Your task to perform on an android device: turn off notifications in google photos Image 0: 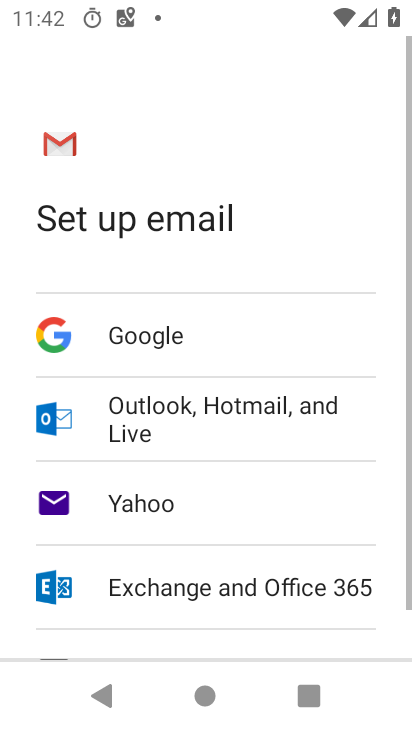
Step 0: press home button
Your task to perform on an android device: turn off notifications in google photos Image 1: 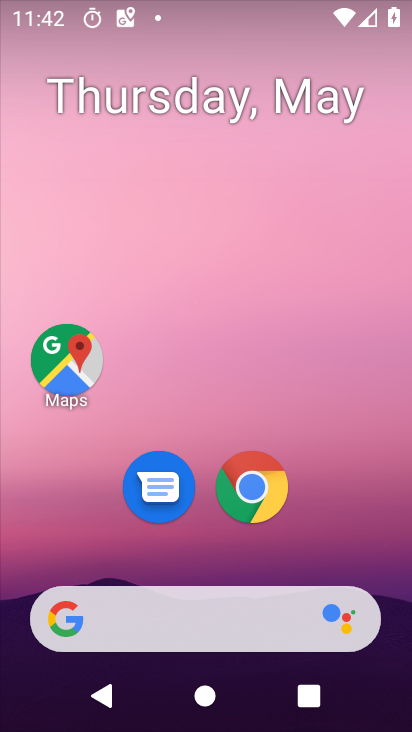
Step 1: drag from (311, 530) to (259, 147)
Your task to perform on an android device: turn off notifications in google photos Image 2: 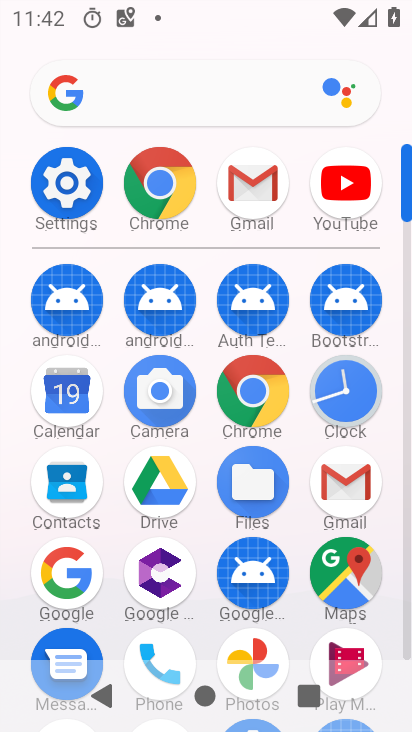
Step 2: click (252, 651)
Your task to perform on an android device: turn off notifications in google photos Image 3: 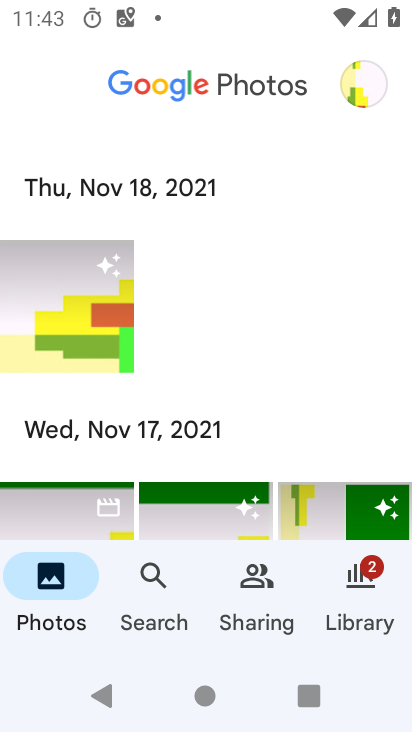
Step 3: click (374, 88)
Your task to perform on an android device: turn off notifications in google photos Image 4: 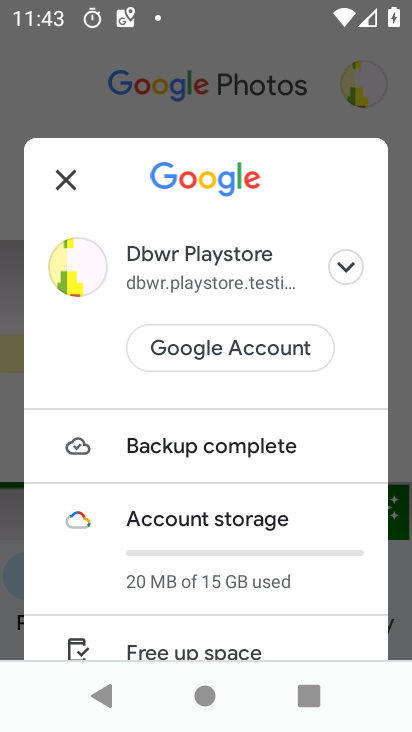
Step 4: drag from (271, 586) to (253, 333)
Your task to perform on an android device: turn off notifications in google photos Image 5: 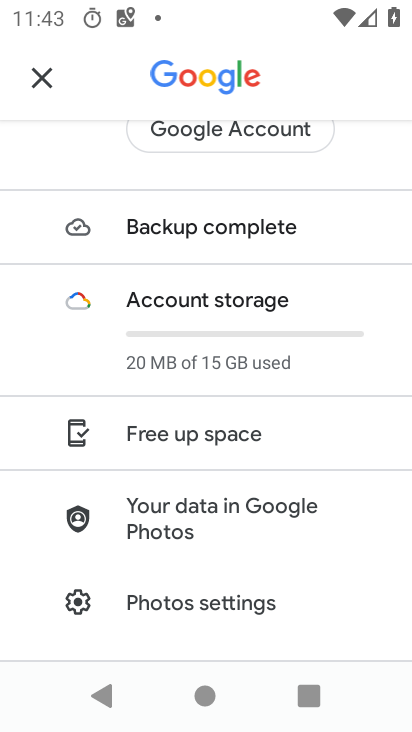
Step 5: click (223, 603)
Your task to perform on an android device: turn off notifications in google photos Image 6: 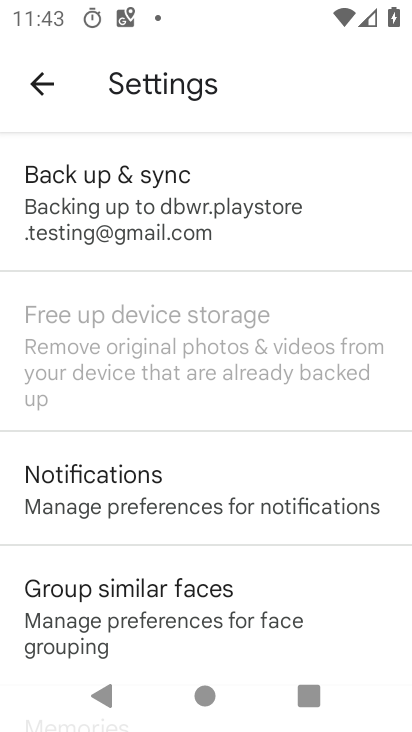
Step 6: click (210, 513)
Your task to perform on an android device: turn off notifications in google photos Image 7: 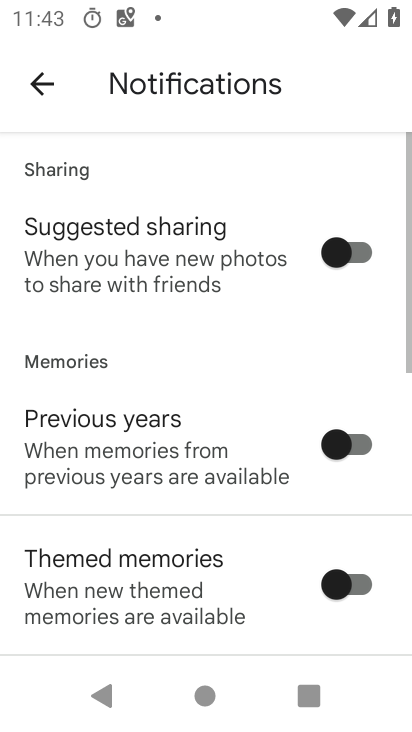
Step 7: drag from (189, 576) to (203, 281)
Your task to perform on an android device: turn off notifications in google photos Image 8: 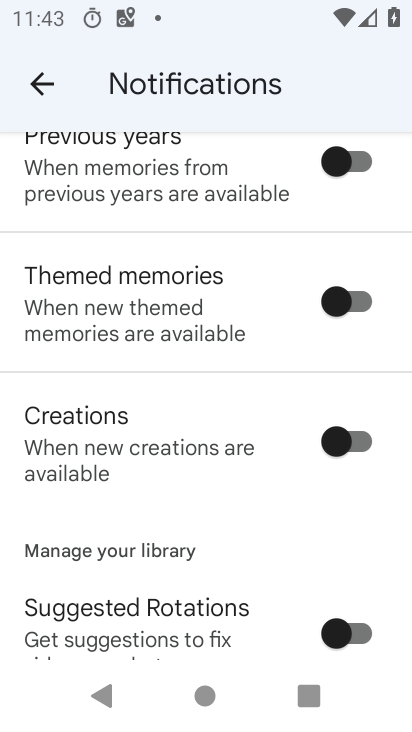
Step 8: drag from (230, 614) to (243, 266)
Your task to perform on an android device: turn off notifications in google photos Image 9: 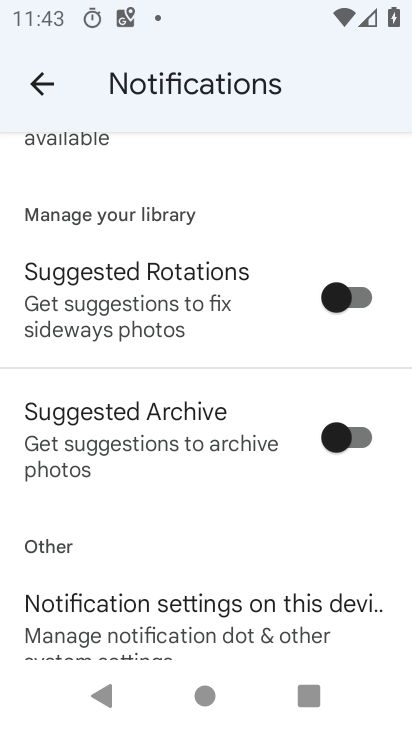
Step 9: drag from (232, 566) to (230, 235)
Your task to perform on an android device: turn off notifications in google photos Image 10: 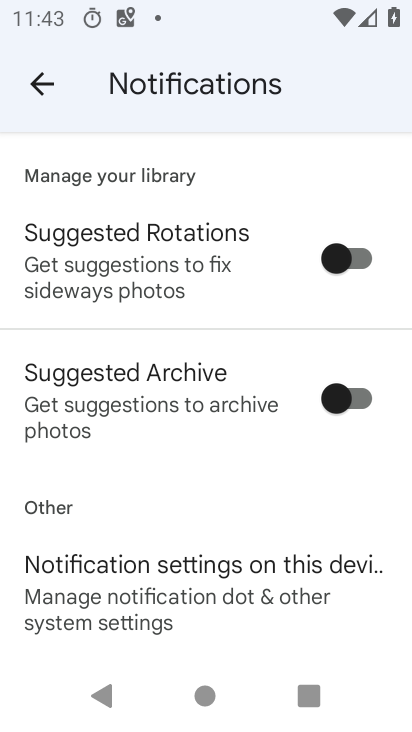
Step 10: click (40, 80)
Your task to perform on an android device: turn off notifications in google photos Image 11: 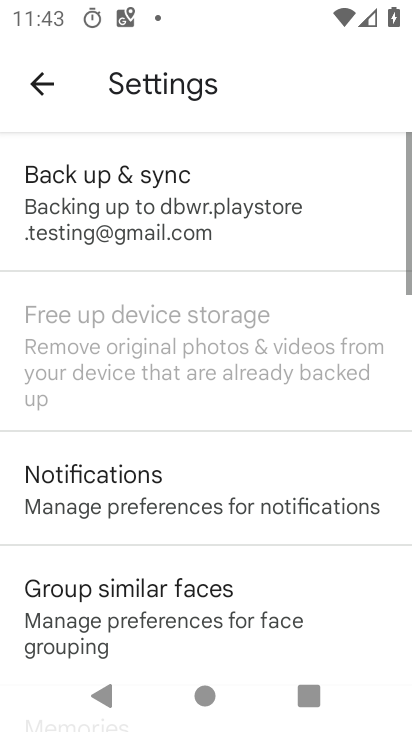
Step 11: drag from (266, 581) to (229, 244)
Your task to perform on an android device: turn off notifications in google photos Image 12: 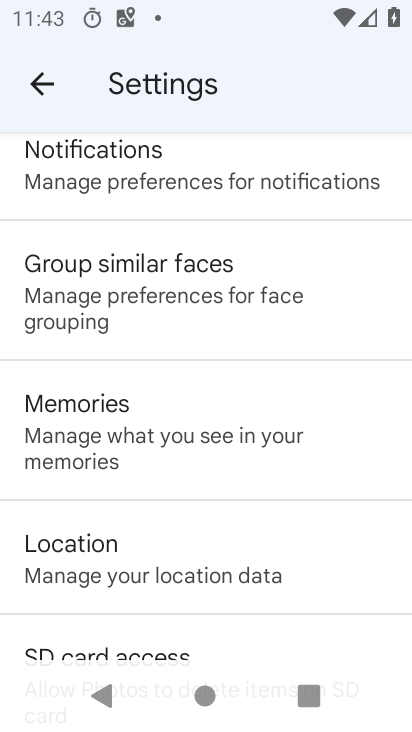
Step 12: drag from (230, 570) to (232, 274)
Your task to perform on an android device: turn off notifications in google photos Image 13: 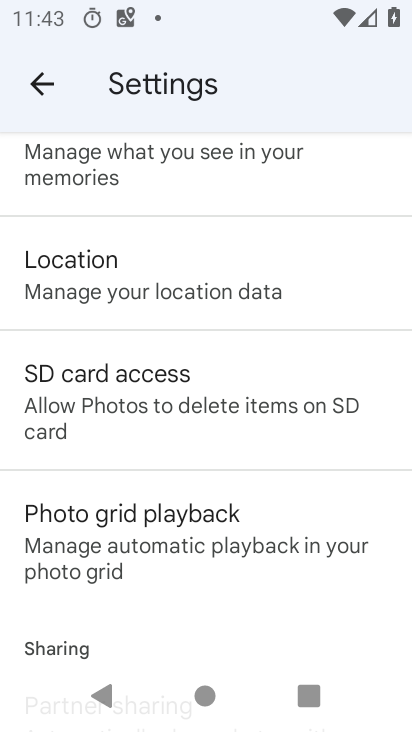
Step 13: drag from (221, 600) to (232, 307)
Your task to perform on an android device: turn off notifications in google photos Image 14: 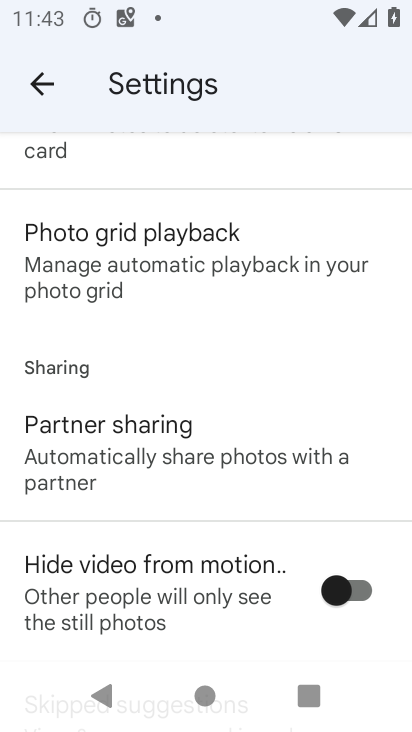
Step 14: drag from (231, 306) to (232, 549)
Your task to perform on an android device: turn off notifications in google photos Image 15: 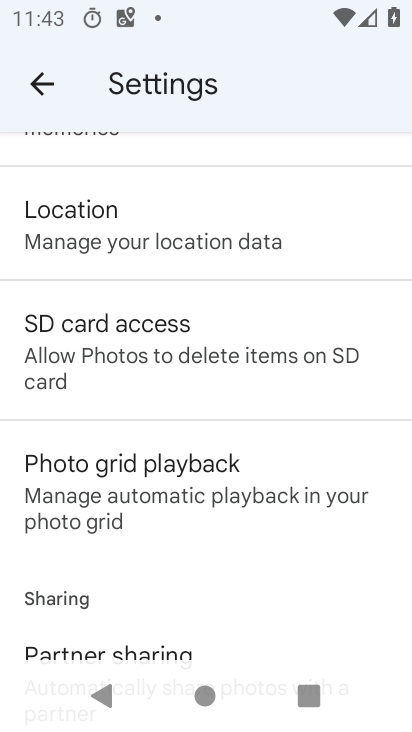
Step 15: drag from (232, 232) to (225, 530)
Your task to perform on an android device: turn off notifications in google photos Image 16: 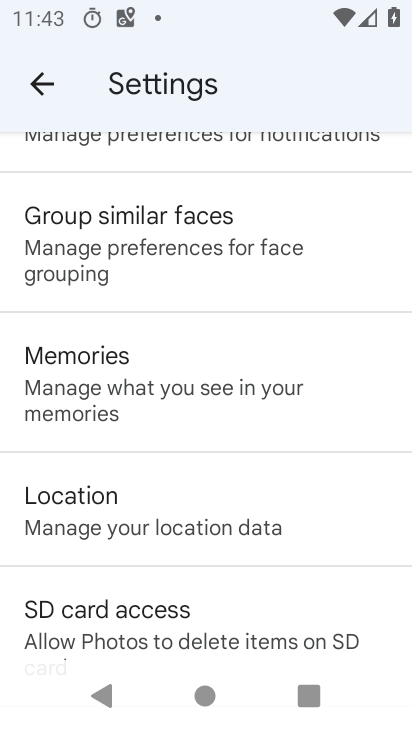
Step 16: drag from (236, 204) to (227, 476)
Your task to perform on an android device: turn off notifications in google photos Image 17: 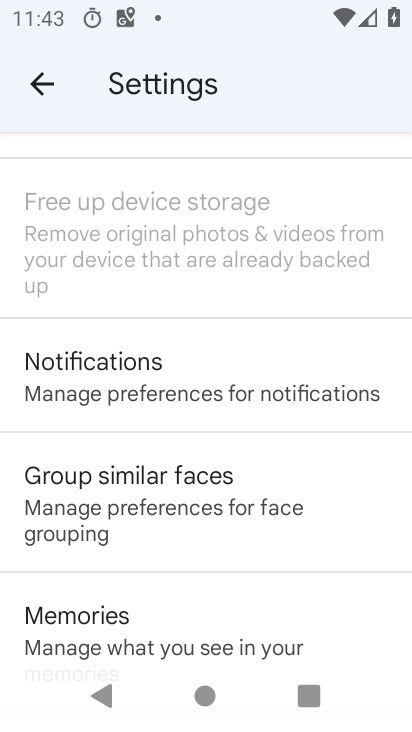
Step 17: click (199, 379)
Your task to perform on an android device: turn off notifications in google photos Image 18: 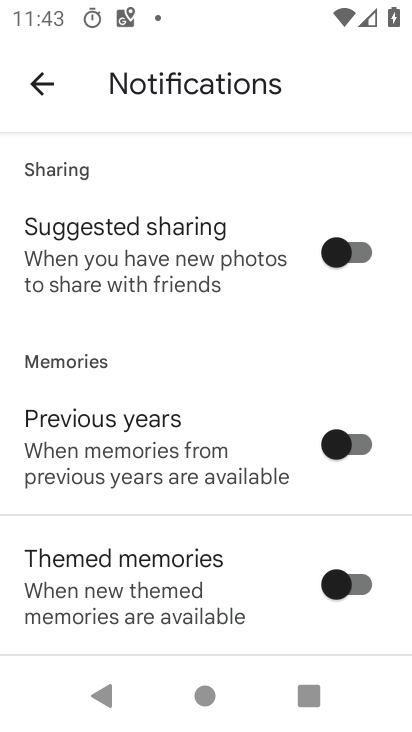
Step 18: drag from (221, 571) to (208, 292)
Your task to perform on an android device: turn off notifications in google photos Image 19: 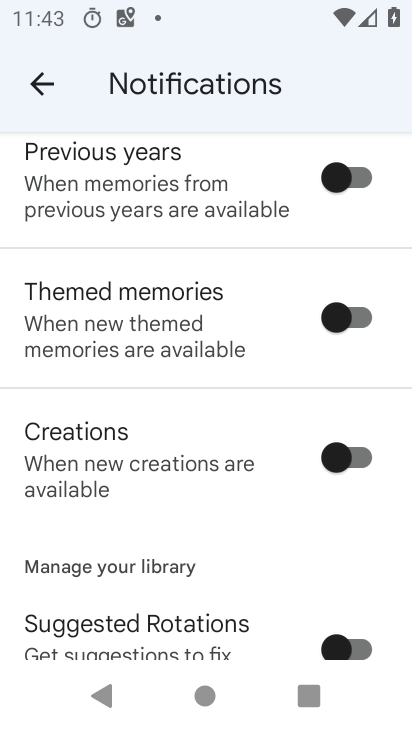
Step 19: drag from (222, 591) to (205, 272)
Your task to perform on an android device: turn off notifications in google photos Image 20: 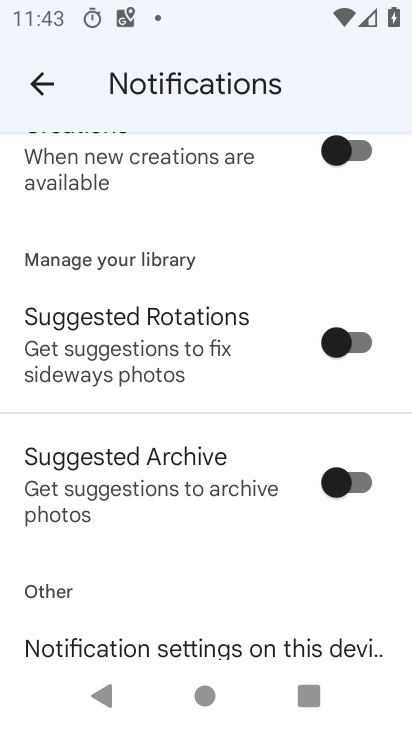
Step 20: drag from (210, 606) to (225, 322)
Your task to perform on an android device: turn off notifications in google photos Image 21: 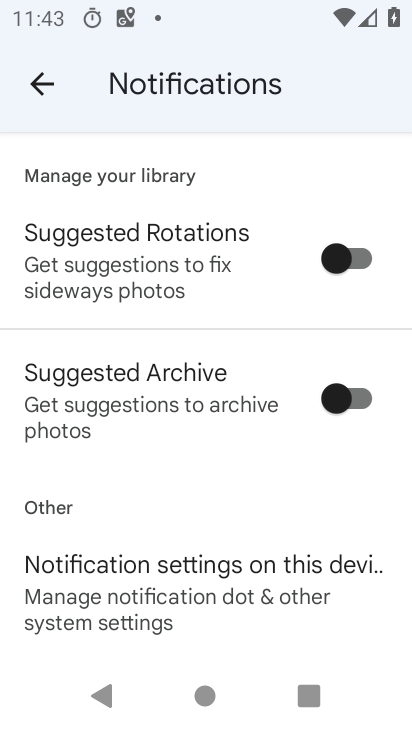
Step 21: click (211, 588)
Your task to perform on an android device: turn off notifications in google photos Image 22: 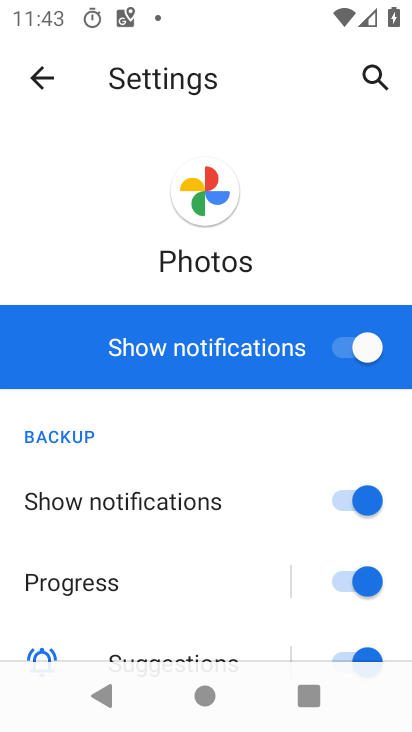
Step 22: click (343, 345)
Your task to perform on an android device: turn off notifications in google photos Image 23: 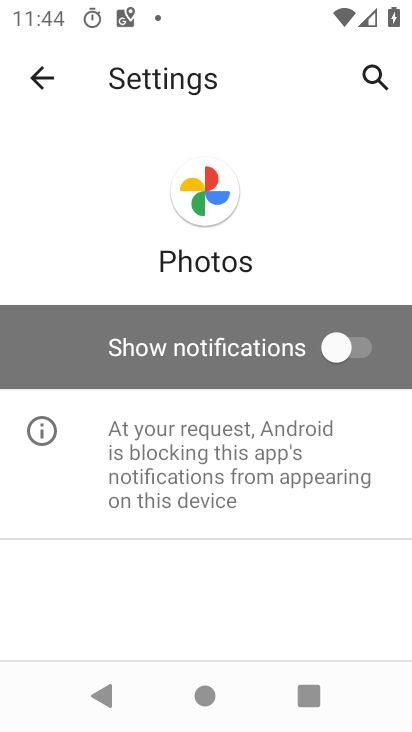
Step 23: task complete